Your task to perform on an android device: turn on javascript in the chrome app Image 0: 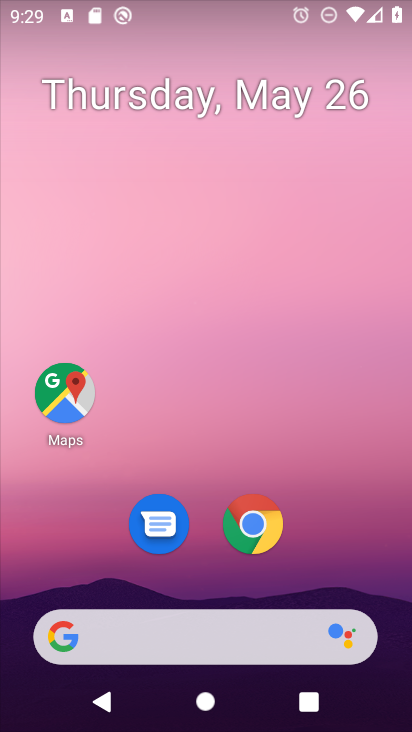
Step 0: click (262, 513)
Your task to perform on an android device: turn on javascript in the chrome app Image 1: 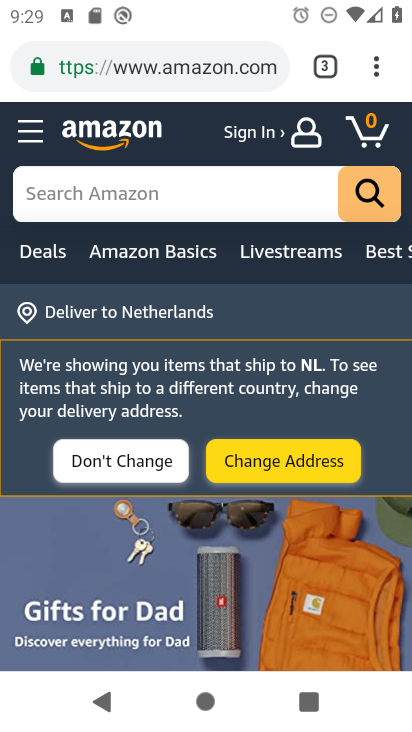
Step 1: click (376, 68)
Your task to perform on an android device: turn on javascript in the chrome app Image 2: 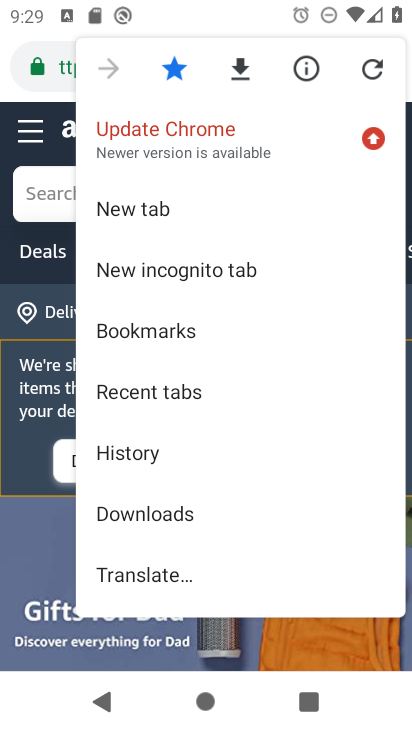
Step 2: drag from (221, 484) to (225, 156)
Your task to perform on an android device: turn on javascript in the chrome app Image 3: 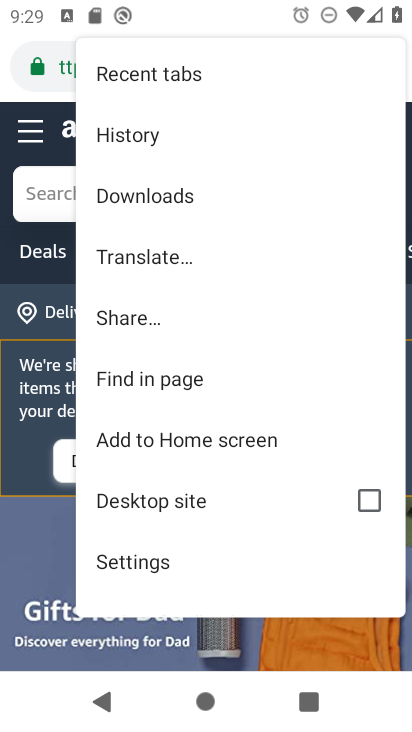
Step 3: click (176, 555)
Your task to perform on an android device: turn on javascript in the chrome app Image 4: 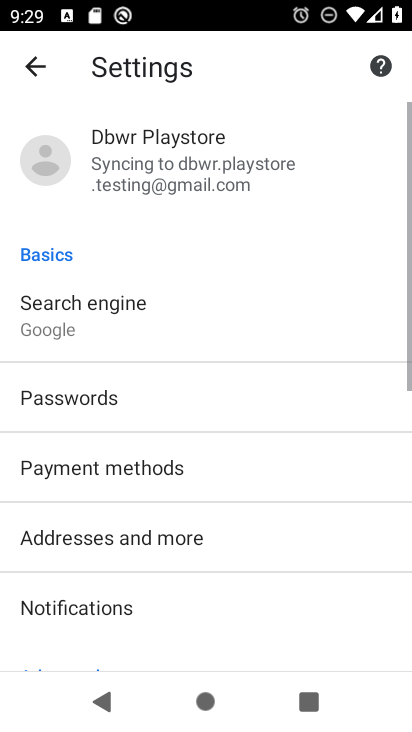
Step 4: drag from (245, 571) to (261, 158)
Your task to perform on an android device: turn on javascript in the chrome app Image 5: 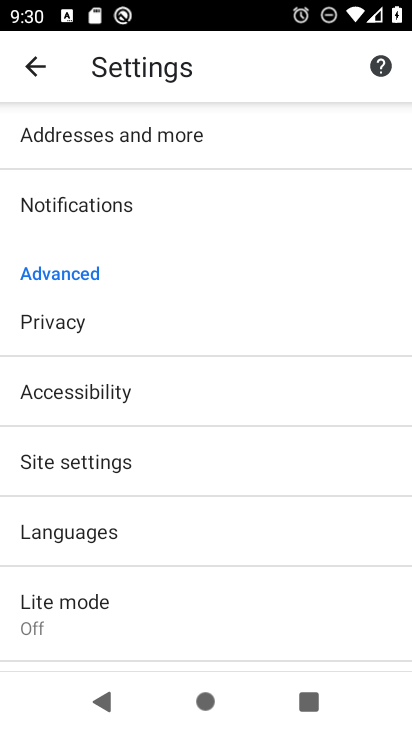
Step 5: click (177, 472)
Your task to perform on an android device: turn on javascript in the chrome app Image 6: 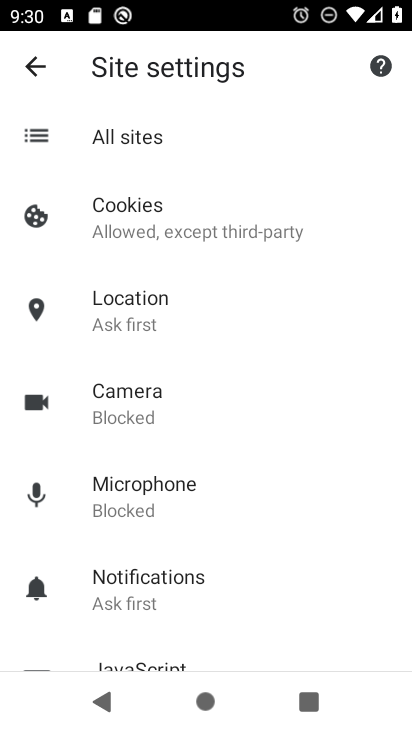
Step 6: drag from (233, 522) to (258, 196)
Your task to perform on an android device: turn on javascript in the chrome app Image 7: 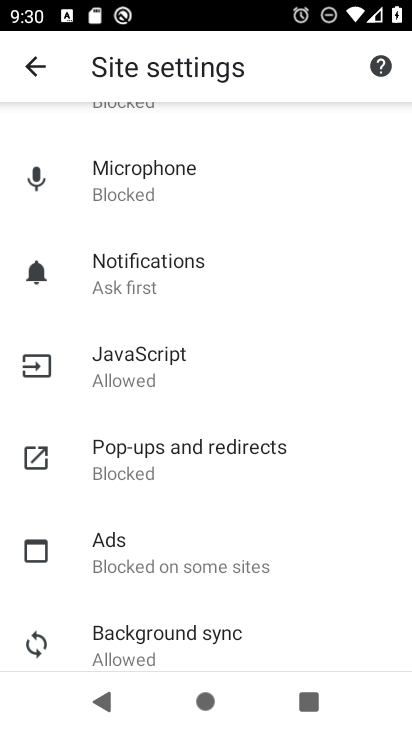
Step 7: click (194, 363)
Your task to perform on an android device: turn on javascript in the chrome app Image 8: 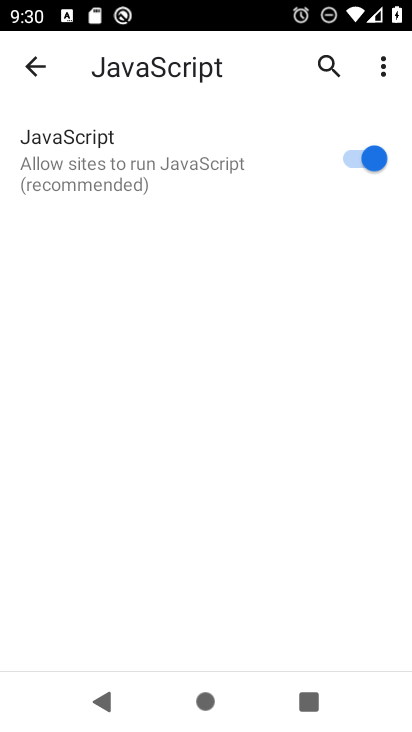
Step 8: task complete